Your task to perform on an android device: turn off javascript in the chrome app Image 0: 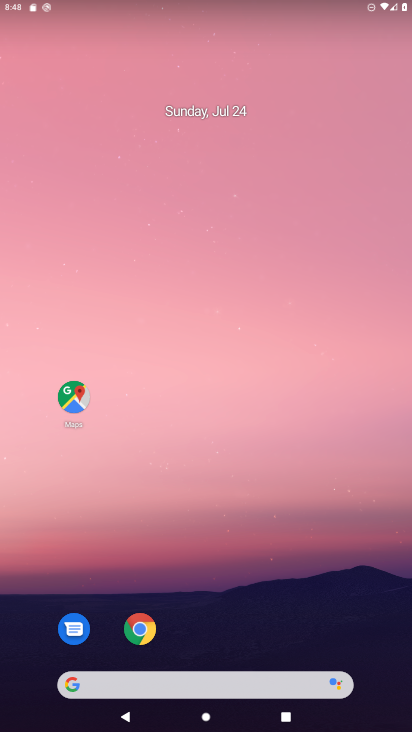
Step 0: drag from (351, 627) to (225, 24)
Your task to perform on an android device: turn off javascript in the chrome app Image 1: 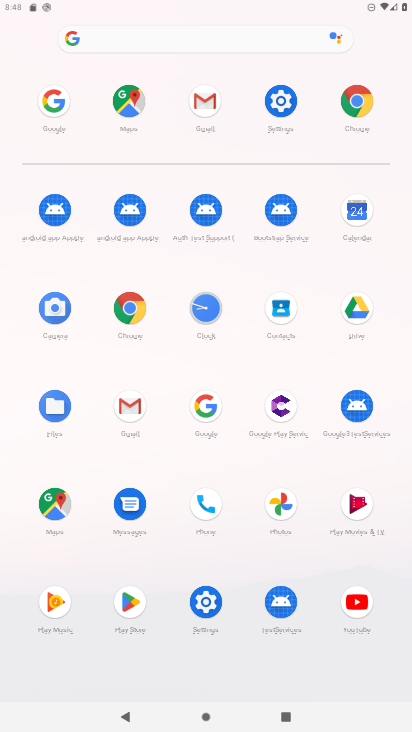
Step 1: click (128, 309)
Your task to perform on an android device: turn off javascript in the chrome app Image 2: 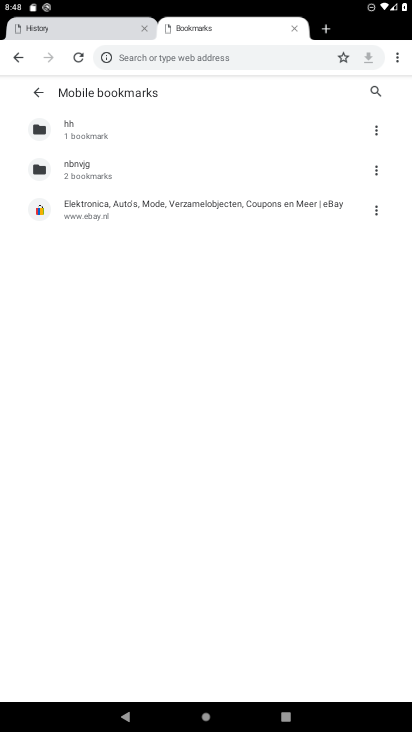
Step 2: click (391, 56)
Your task to perform on an android device: turn off javascript in the chrome app Image 3: 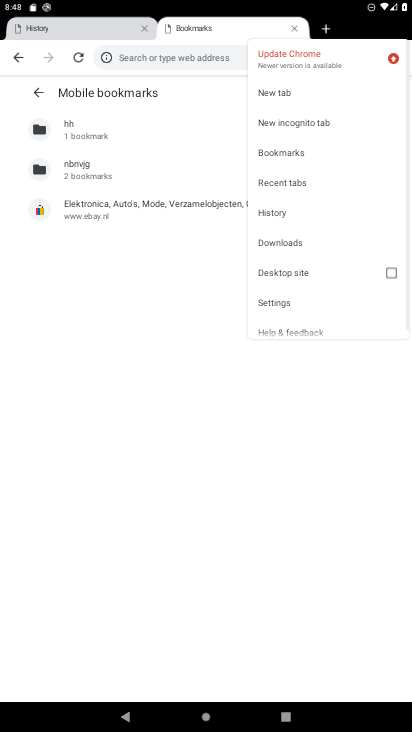
Step 3: click (306, 303)
Your task to perform on an android device: turn off javascript in the chrome app Image 4: 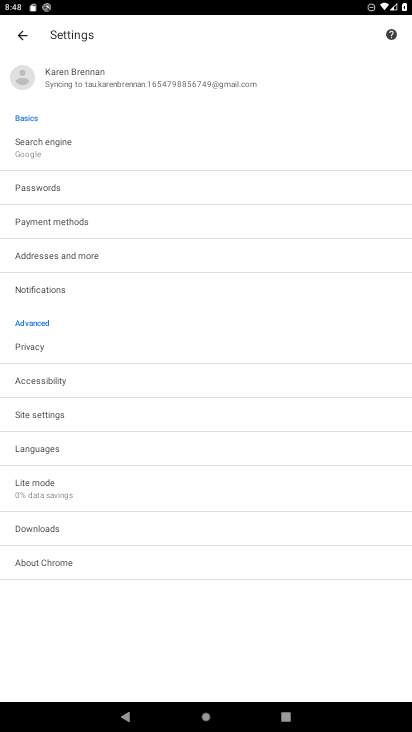
Step 4: click (84, 408)
Your task to perform on an android device: turn off javascript in the chrome app Image 5: 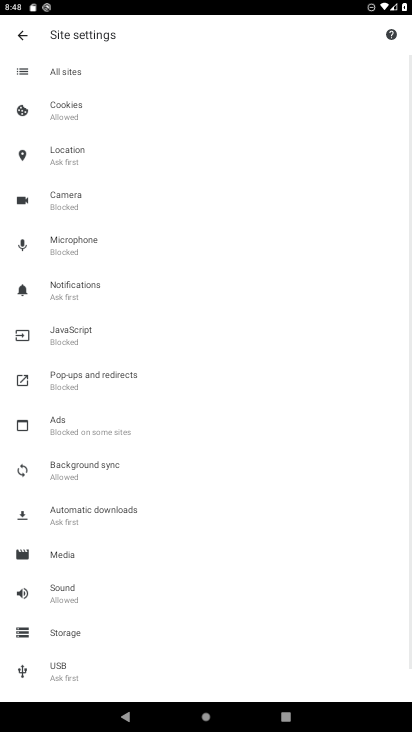
Step 5: click (74, 335)
Your task to perform on an android device: turn off javascript in the chrome app Image 6: 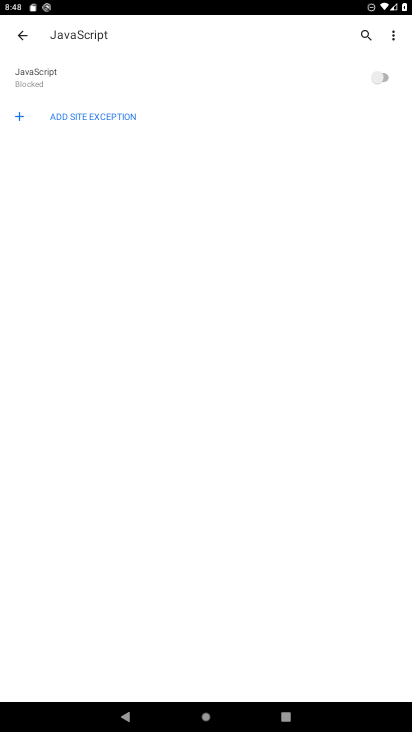
Step 6: task complete